Your task to perform on an android device: Open notification settings Image 0: 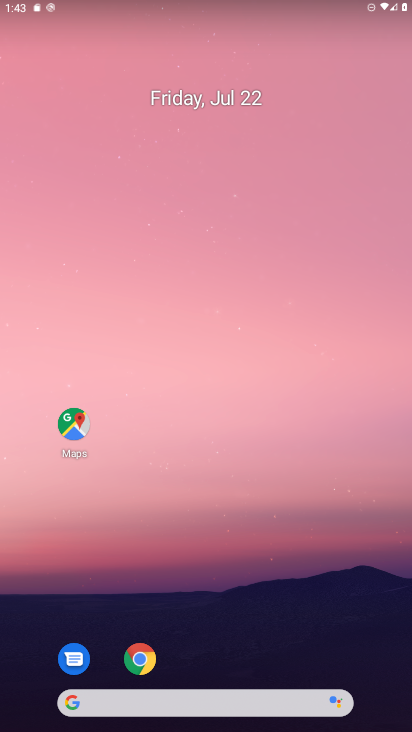
Step 0: drag from (209, 707) to (233, 176)
Your task to perform on an android device: Open notification settings Image 1: 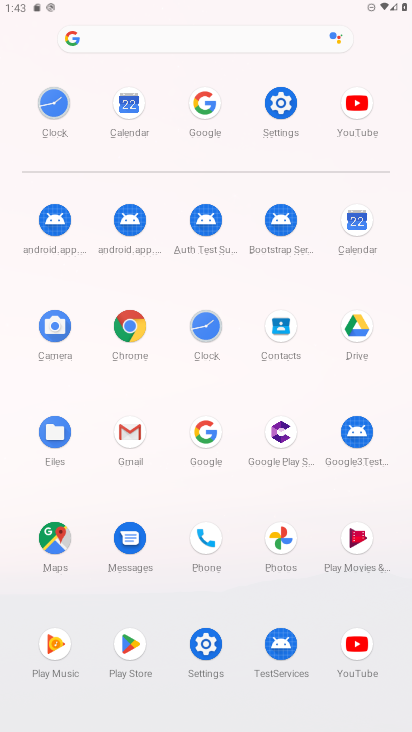
Step 1: click (281, 103)
Your task to perform on an android device: Open notification settings Image 2: 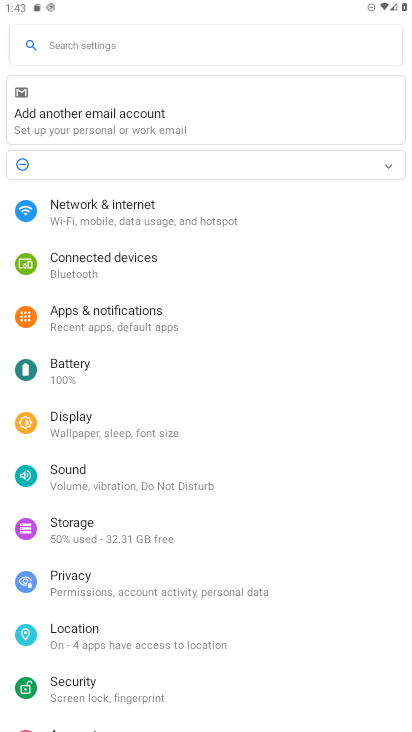
Step 2: click (102, 313)
Your task to perform on an android device: Open notification settings Image 3: 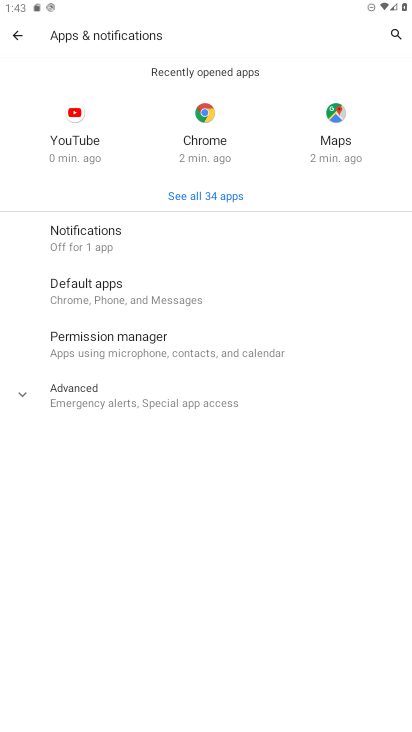
Step 3: click (82, 234)
Your task to perform on an android device: Open notification settings Image 4: 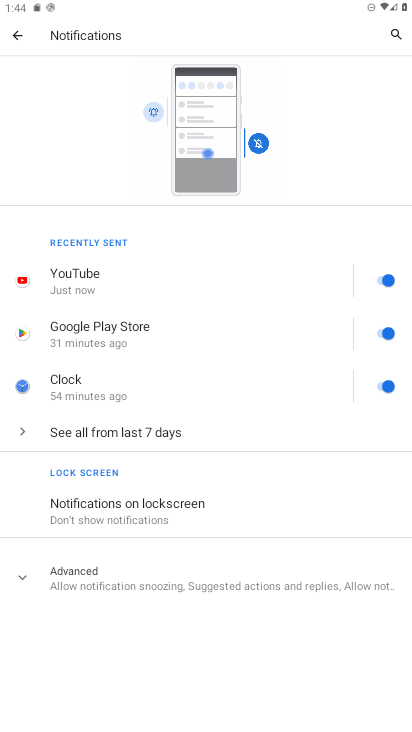
Step 4: task complete